Your task to perform on an android device: turn off location Image 0: 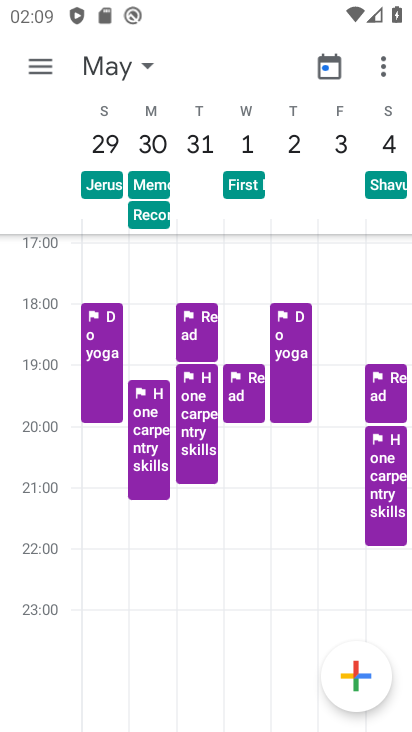
Step 0: press home button
Your task to perform on an android device: turn off location Image 1: 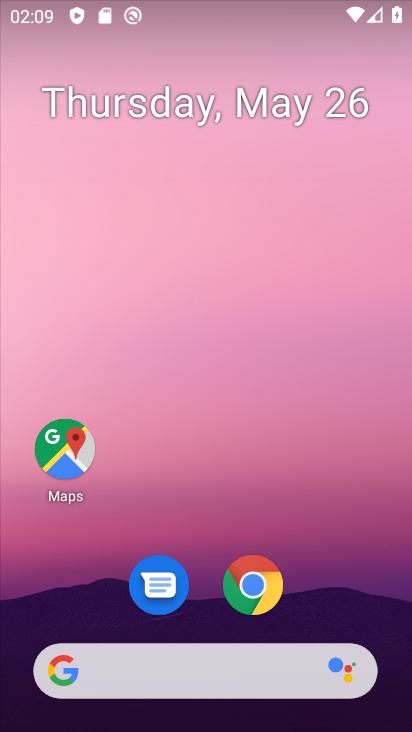
Step 1: drag from (232, 482) to (225, 38)
Your task to perform on an android device: turn off location Image 2: 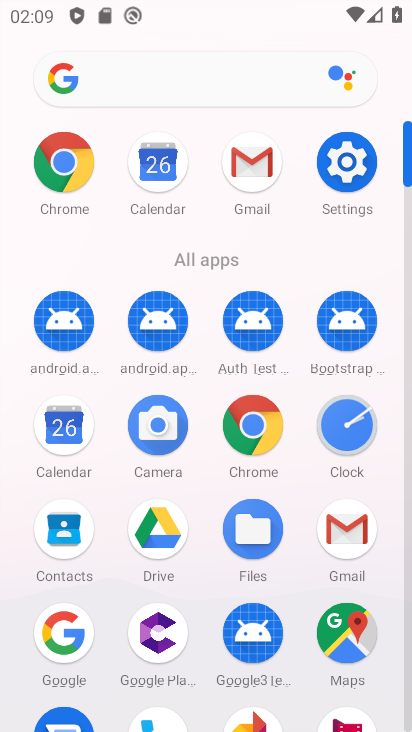
Step 2: click (348, 161)
Your task to perform on an android device: turn off location Image 3: 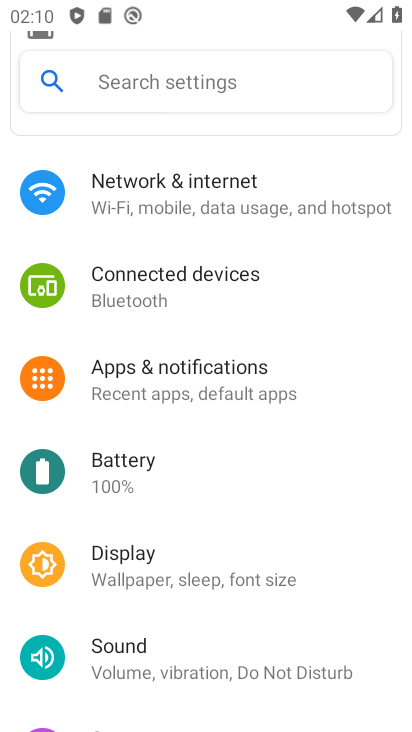
Step 3: drag from (207, 508) to (217, 132)
Your task to perform on an android device: turn off location Image 4: 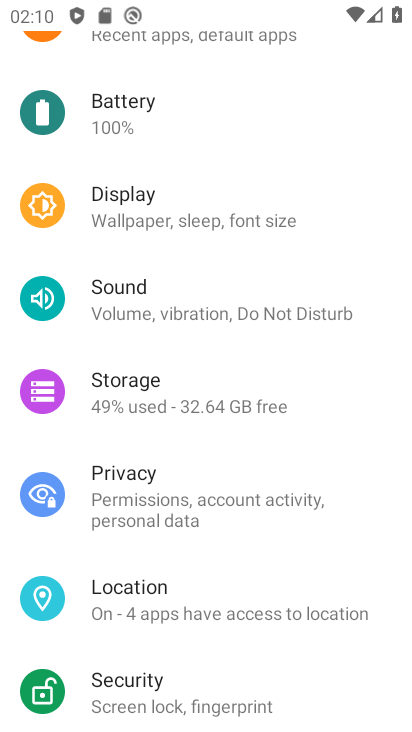
Step 4: click (178, 585)
Your task to perform on an android device: turn off location Image 5: 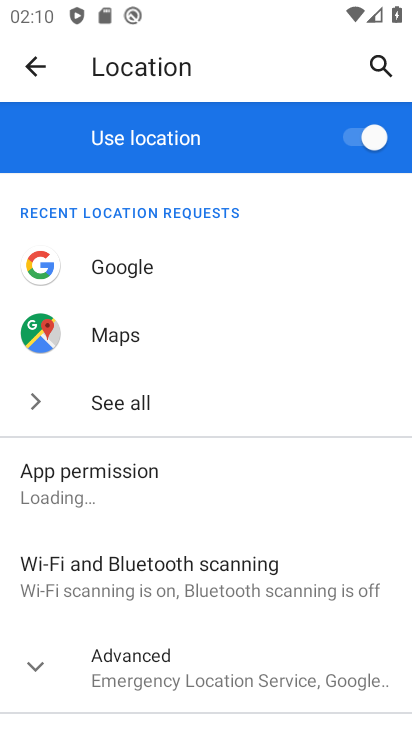
Step 5: click (360, 136)
Your task to perform on an android device: turn off location Image 6: 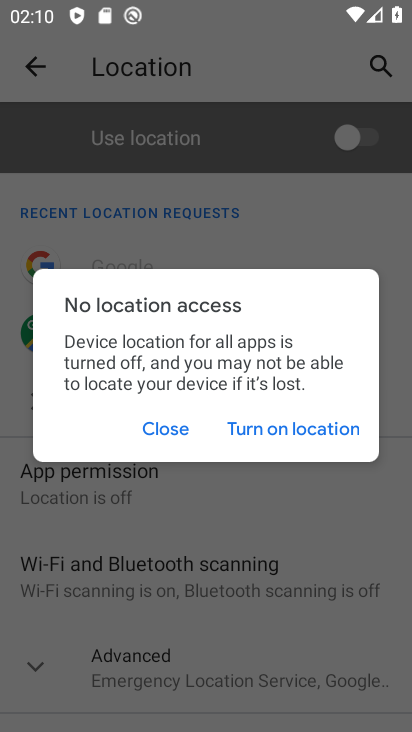
Step 6: task complete